Your task to perform on an android device: Go to Wikipedia Image 0: 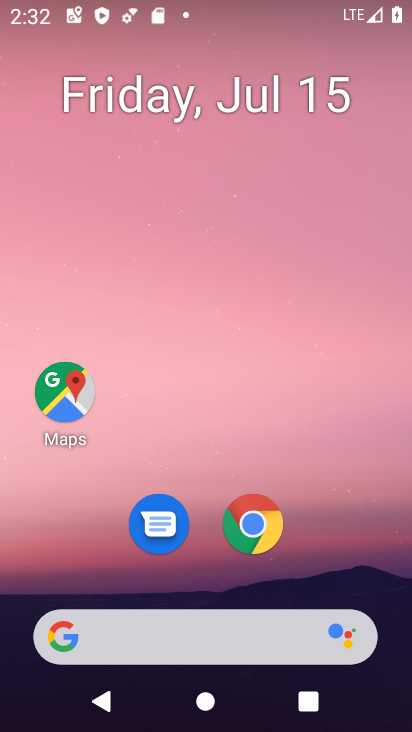
Step 0: click (247, 522)
Your task to perform on an android device: Go to Wikipedia Image 1: 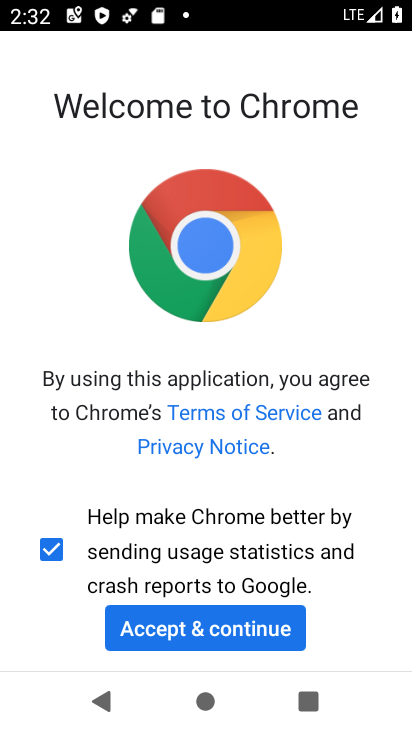
Step 1: click (245, 629)
Your task to perform on an android device: Go to Wikipedia Image 2: 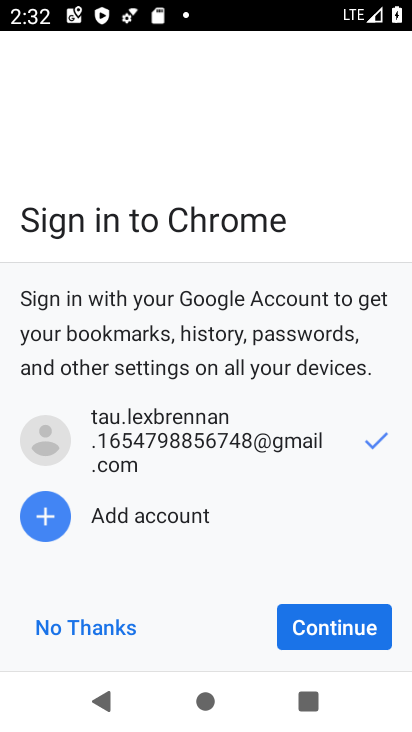
Step 2: click (339, 627)
Your task to perform on an android device: Go to Wikipedia Image 3: 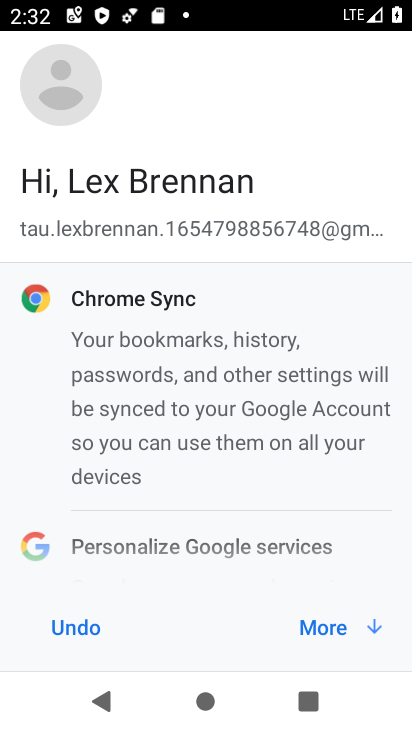
Step 3: click (339, 627)
Your task to perform on an android device: Go to Wikipedia Image 4: 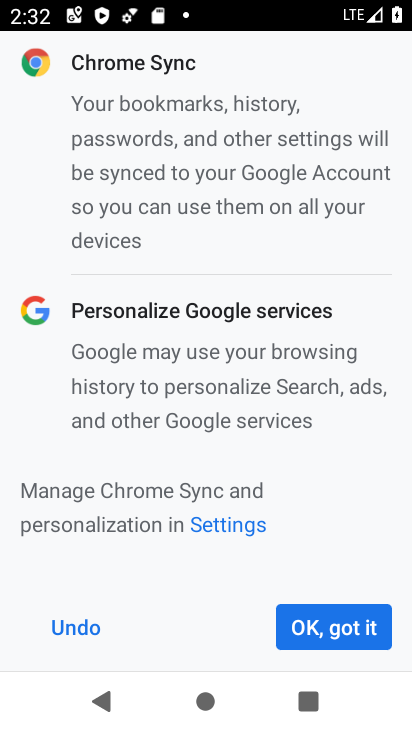
Step 4: click (339, 626)
Your task to perform on an android device: Go to Wikipedia Image 5: 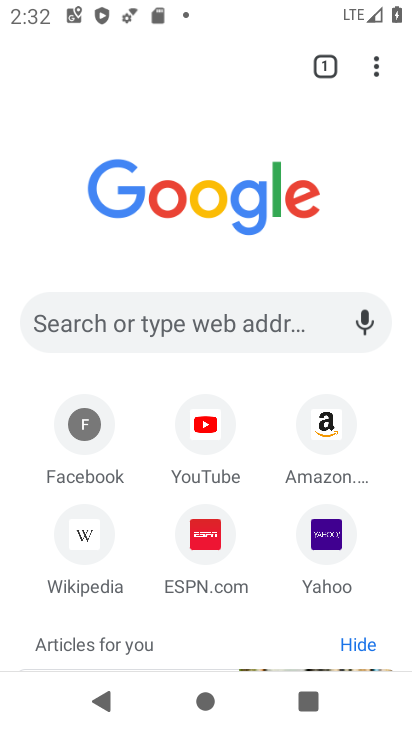
Step 5: click (87, 539)
Your task to perform on an android device: Go to Wikipedia Image 6: 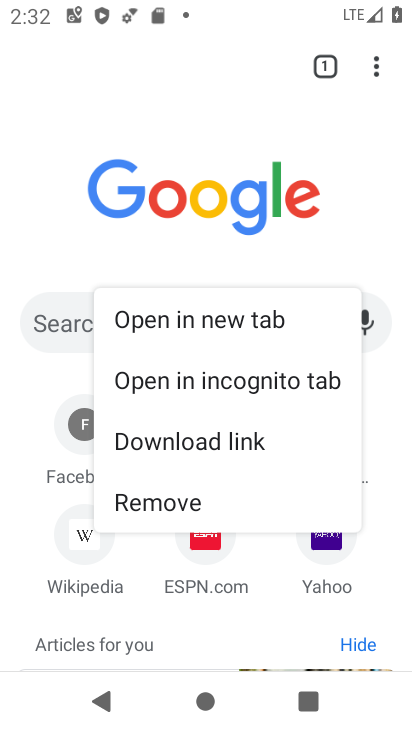
Step 6: click (84, 532)
Your task to perform on an android device: Go to Wikipedia Image 7: 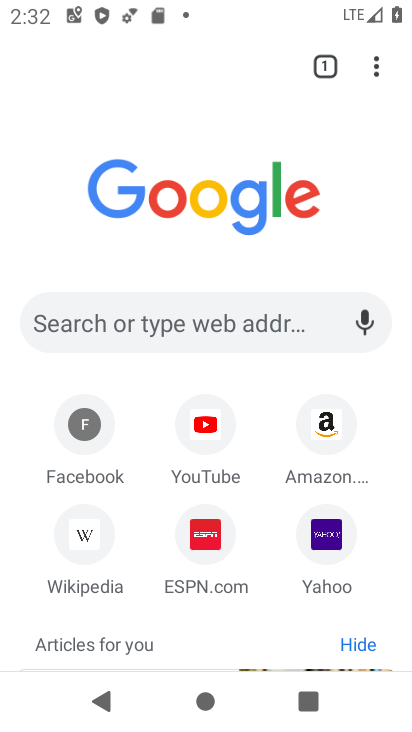
Step 7: click (92, 539)
Your task to perform on an android device: Go to Wikipedia Image 8: 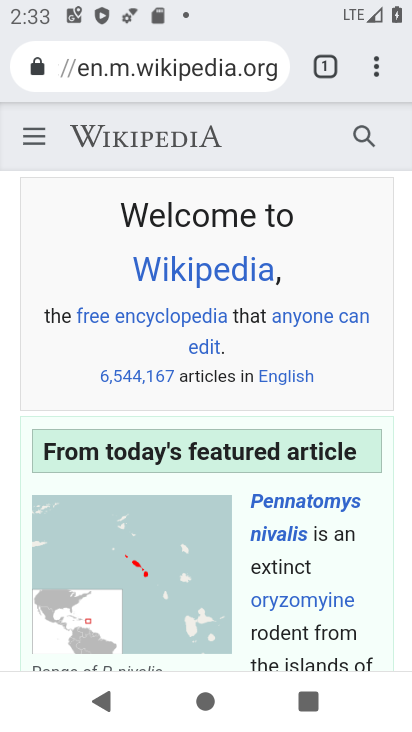
Step 8: task complete